Your task to perform on an android device: turn off location Image 0: 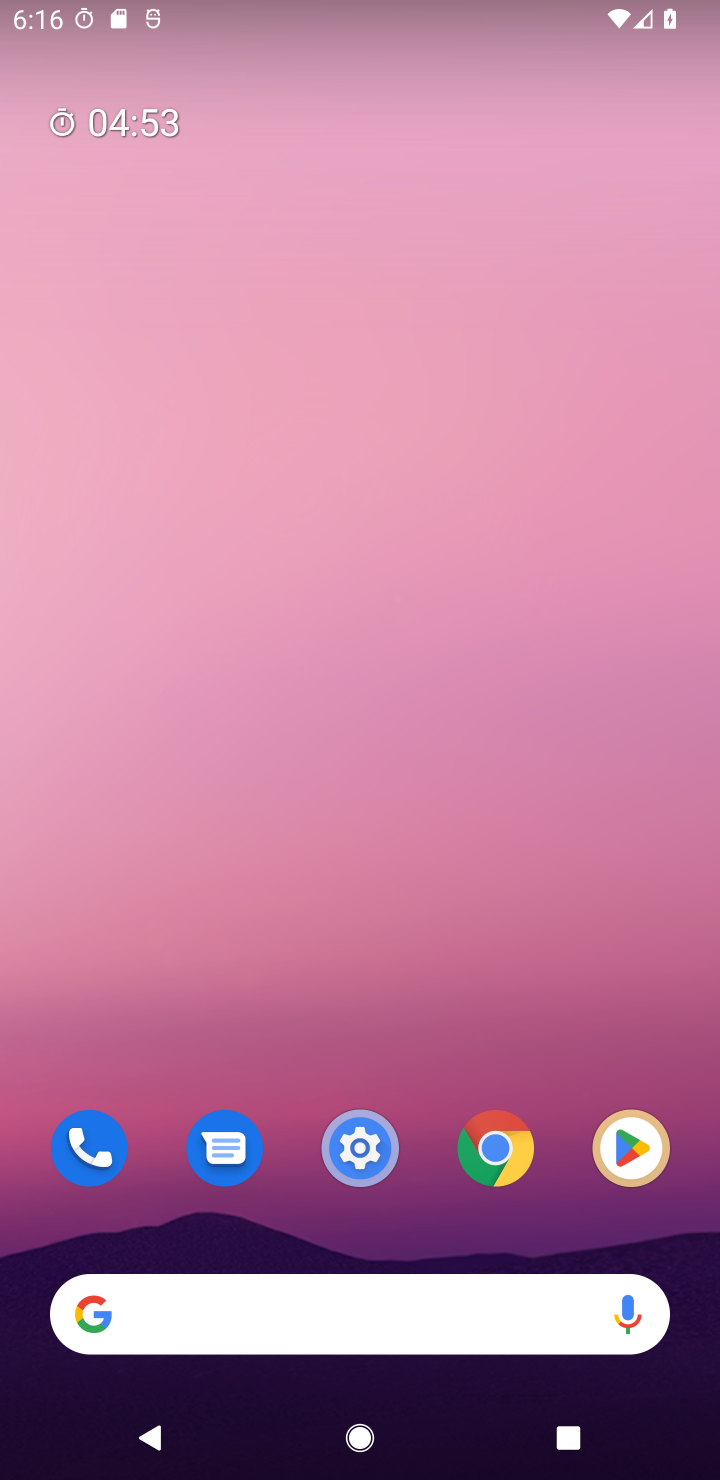
Step 0: drag from (353, 1187) to (432, 31)
Your task to perform on an android device: turn off location Image 1: 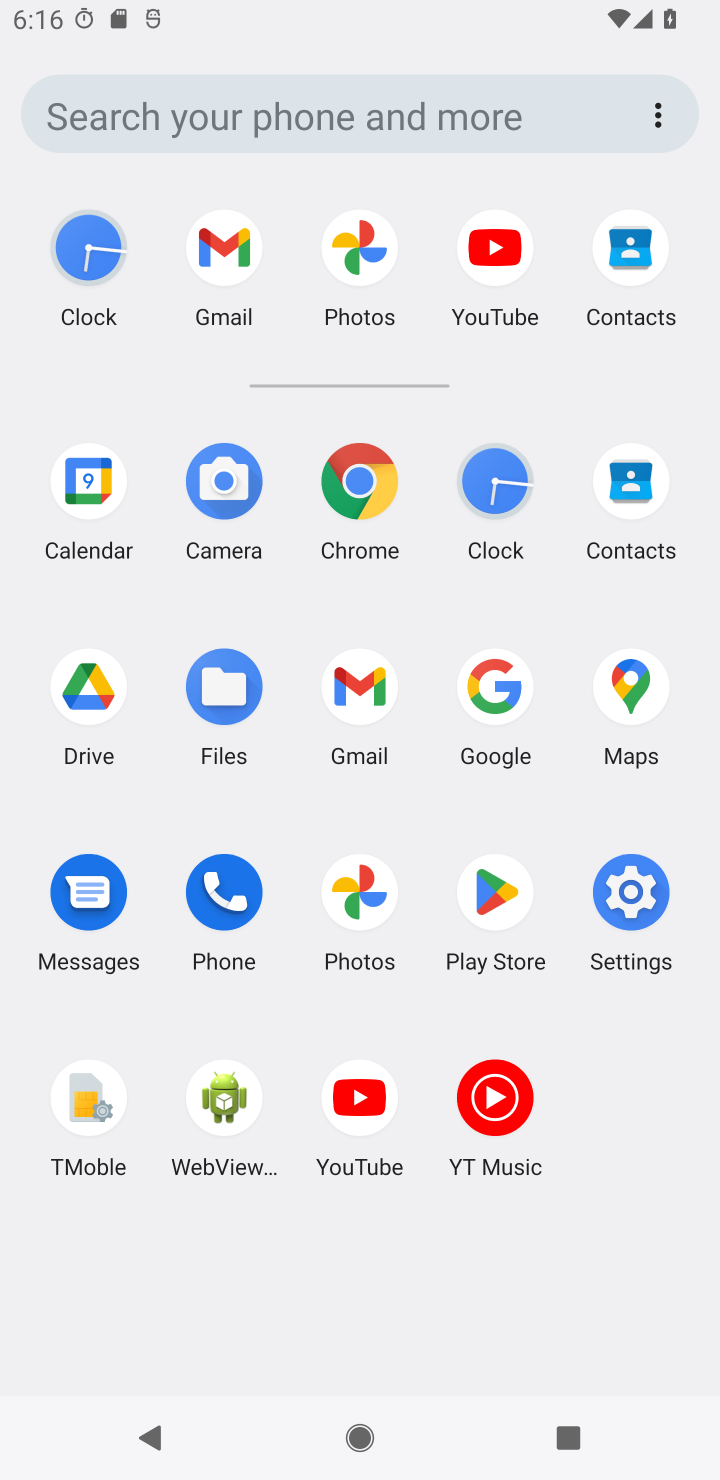
Step 1: click (651, 923)
Your task to perform on an android device: turn off location Image 2: 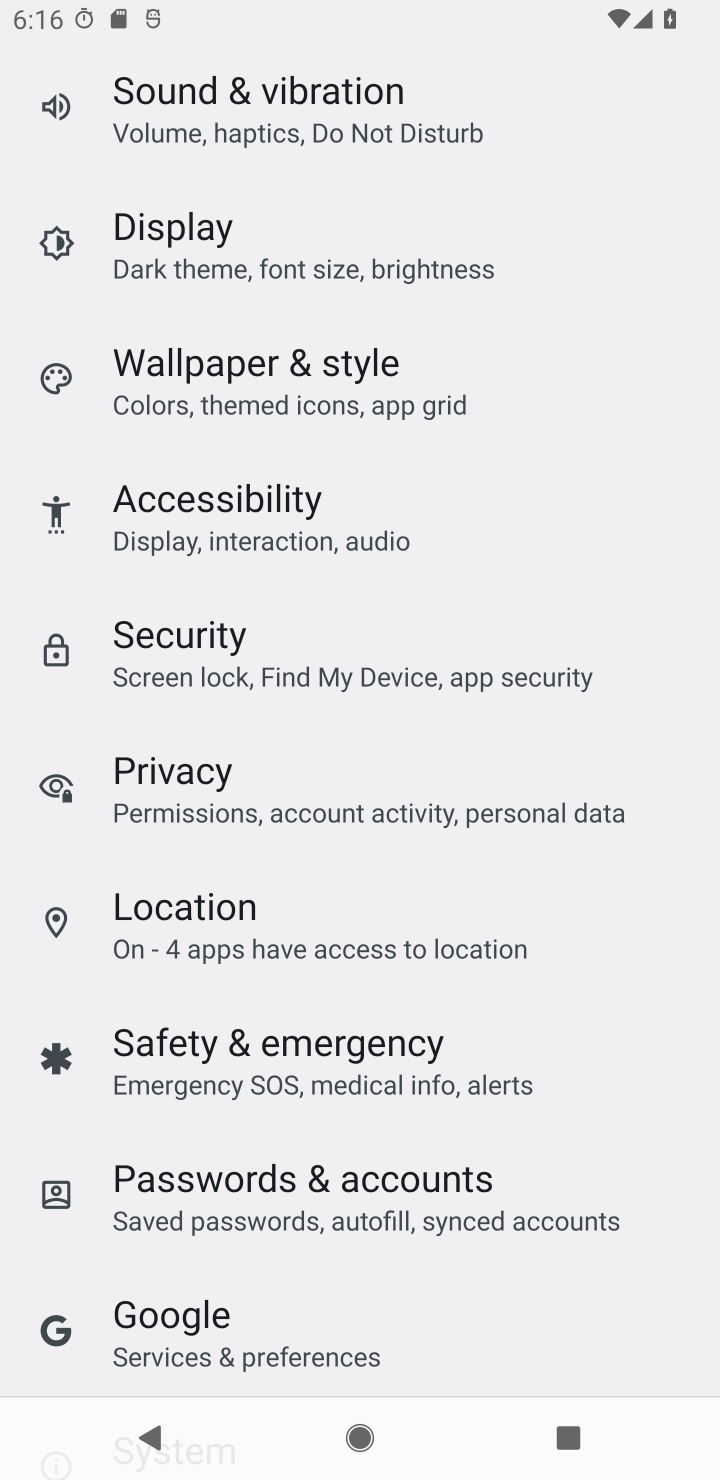
Step 2: click (197, 936)
Your task to perform on an android device: turn off location Image 3: 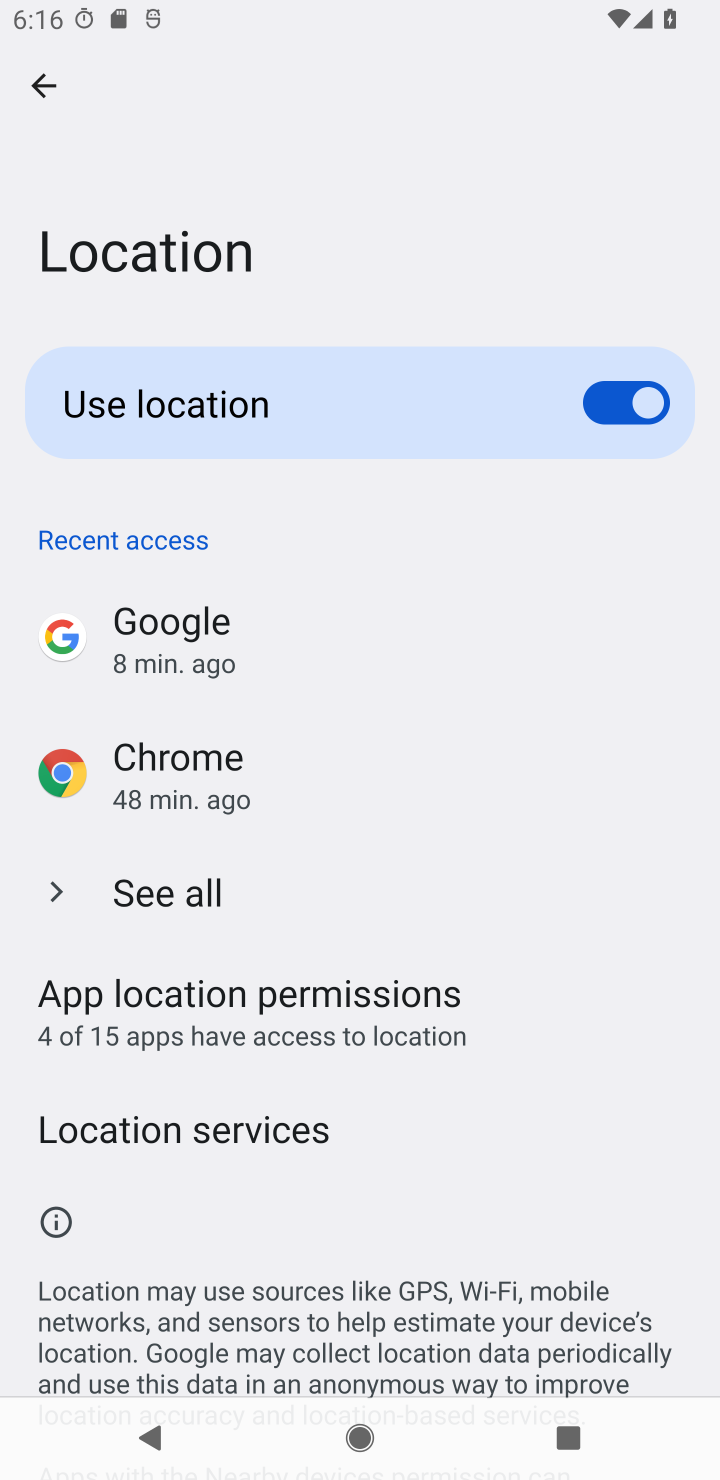
Step 3: click (561, 386)
Your task to perform on an android device: turn off location Image 4: 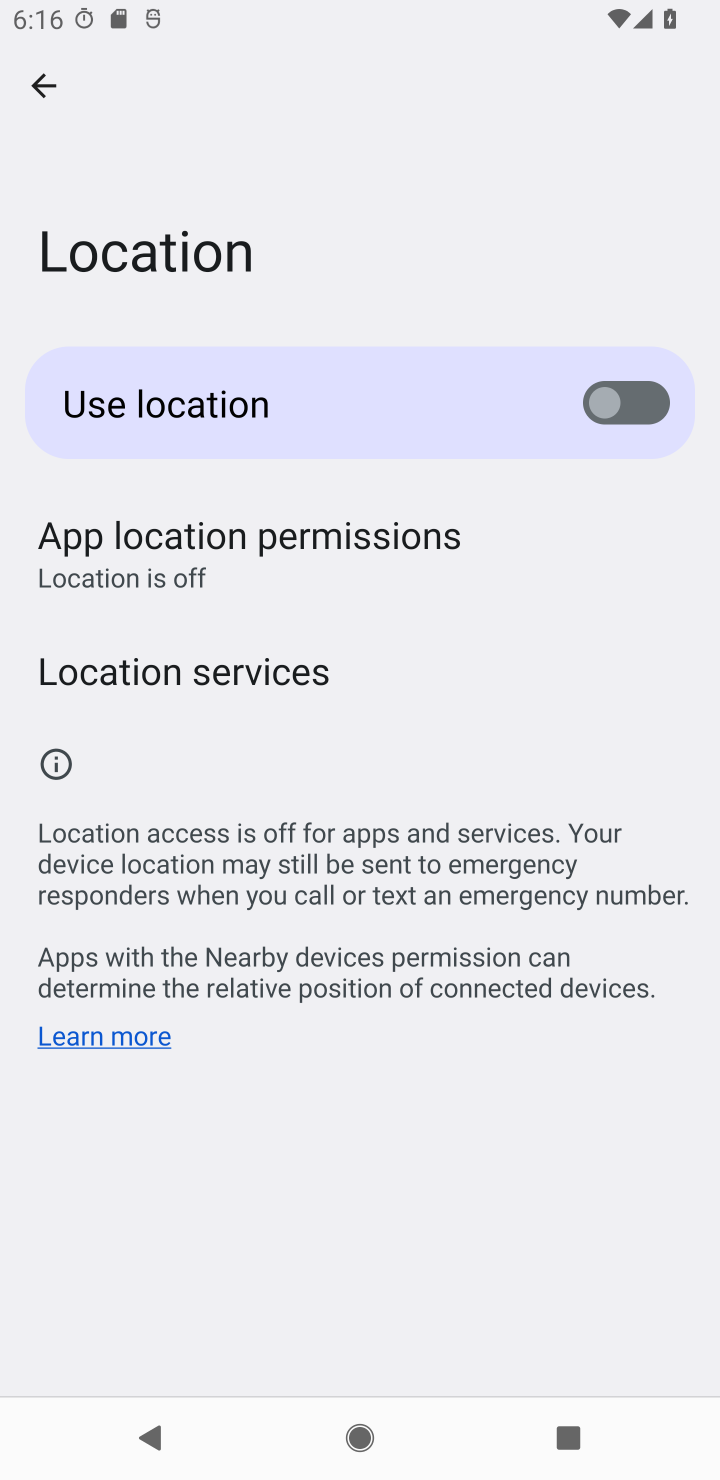
Step 4: task complete